Your task to perform on an android device: Open Google Chrome and click the shortcut for Amazon.com Image 0: 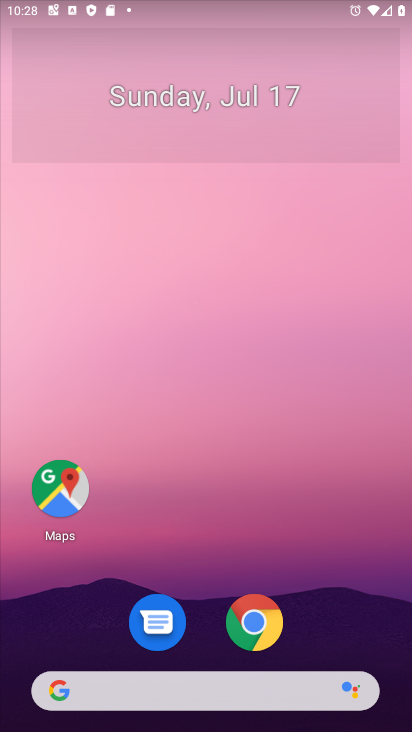
Step 0: click (259, 632)
Your task to perform on an android device: Open Google Chrome and click the shortcut for Amazon.com Image 1: 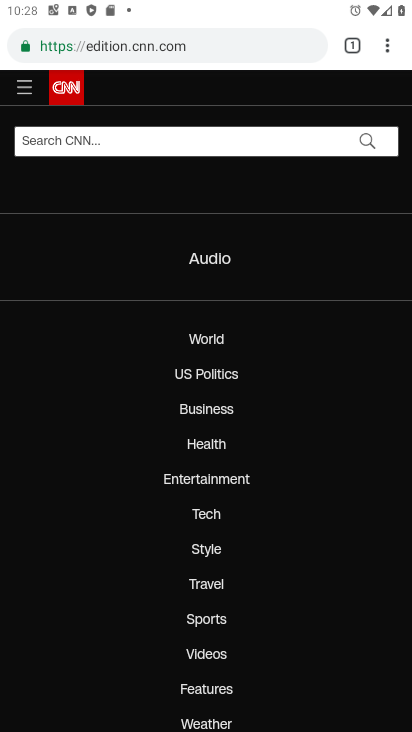
Step 1: click (391, 41)
Your task to perform on an android device: Open Google Chrome and click the shortcut for Amazon.com Image 2: 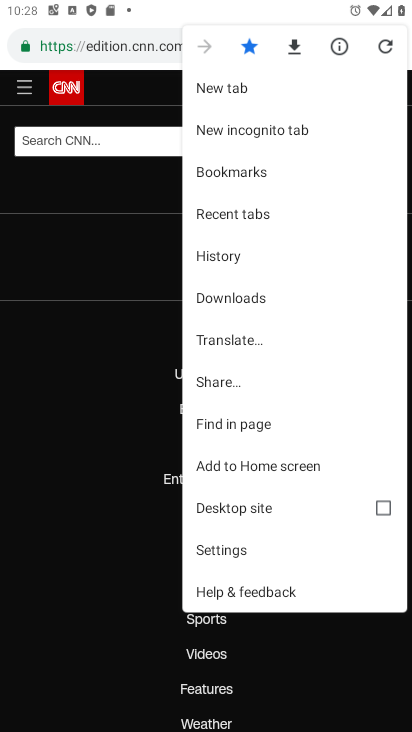
Step 2: click (297, 83)
Your task to perform on an android device: Open Google Chrome and click the shortcut for Amazon.com Image 3: 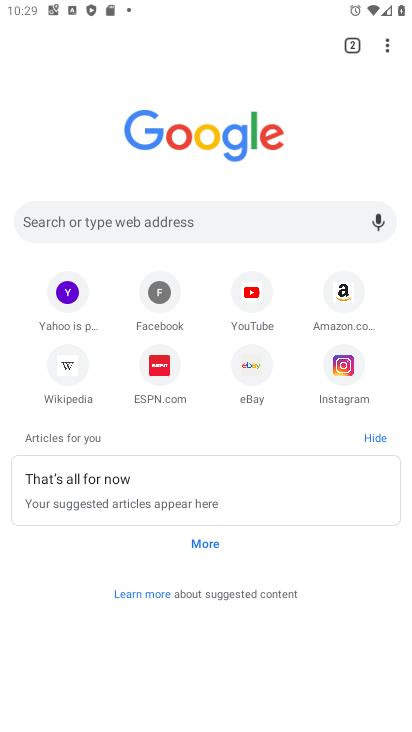
Step 3: click (345, 305)
Your task to perform on an android device: Open Google Chrome and click the shortcut for Amazon.com Image 4: 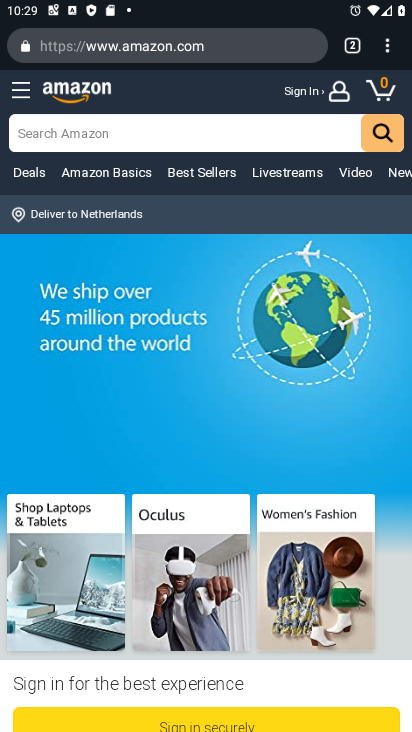
Step 4: task complete